Your task to perform on an android device: When is my next appointment? Image 0: 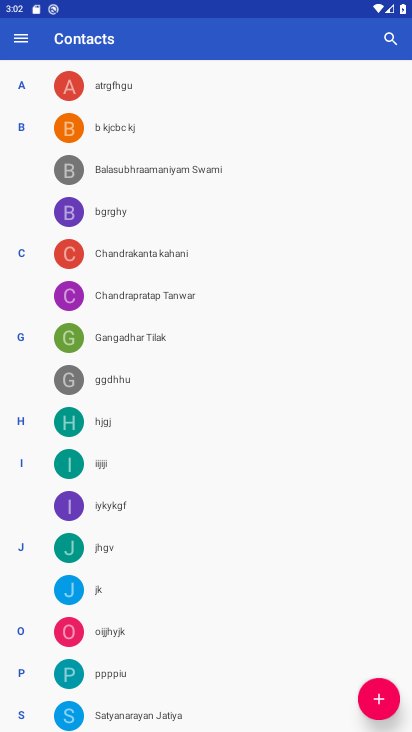
Step 0: task impossible